Your task to perform on an android device: Open privacy settings Image 0: 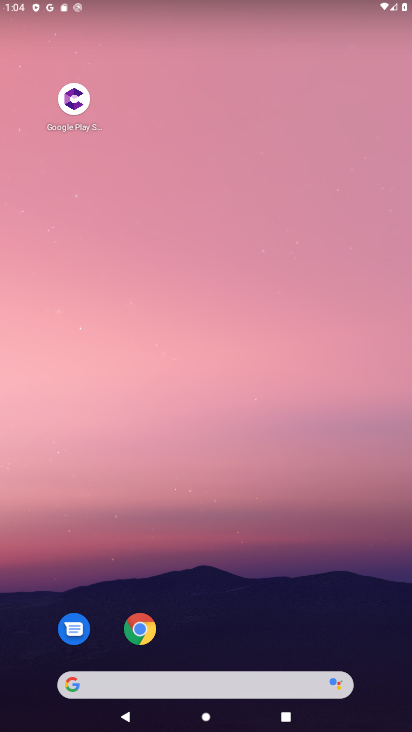
Step 0: drag from (209, 672) to (192, 200)
Your task to perform on an android device: Open privacy settings Image 1: 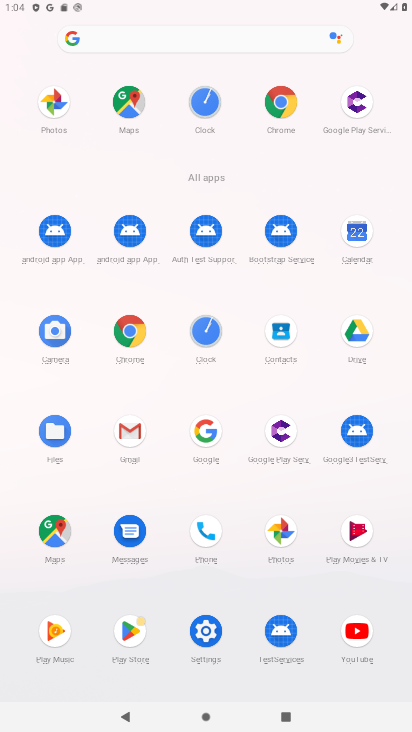
Step 1: click (213, 630)
Your task to perform on an android device: Open privacy settings Image 2: 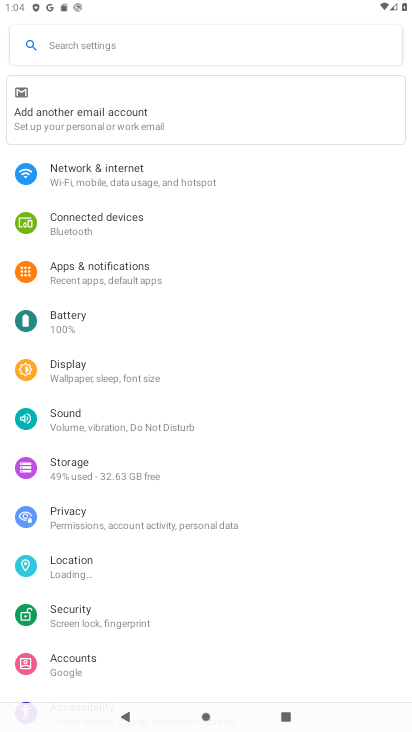
Step 2: click (67, 504)
Your task to perform on an android device: Open privacy settings Image 3: 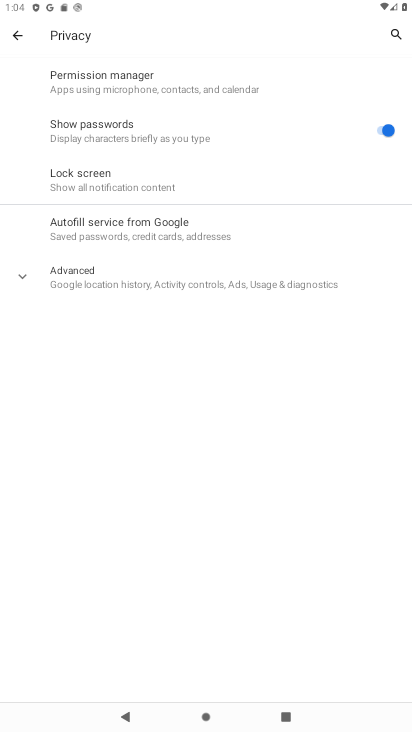
Step 3: click (75, 265)
Your task to perform on an android device: Open privacy settings Image 4: 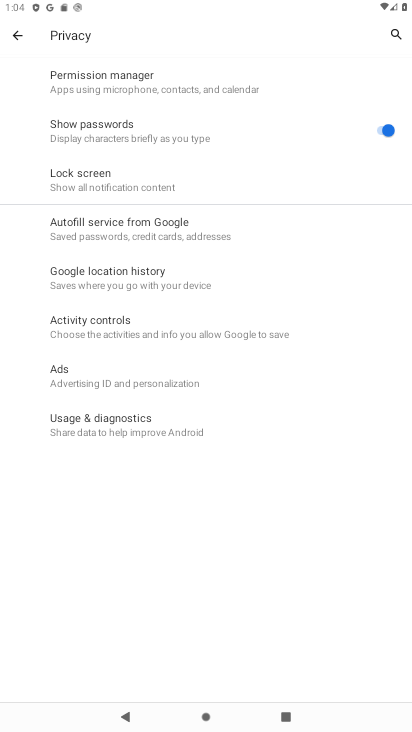
Step 4: task complete